Your task to perform on an android device: add a label to a message in the gmail app Image 0: 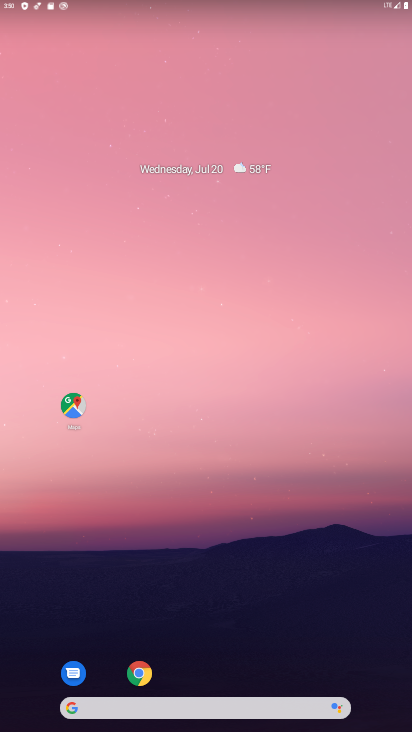
Step 0: drag from (268, 505) to (235, 232)
Your task to perform on an android device: add a label to a message in the gmail app Image 1: 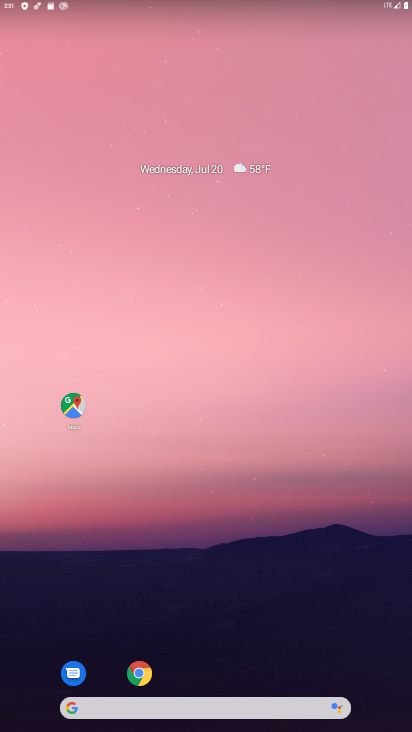
Step 1: drag from (210, 449) to (255, 83)
Your task to perform on an android device: add a label to a message in the gmail app Image 2: 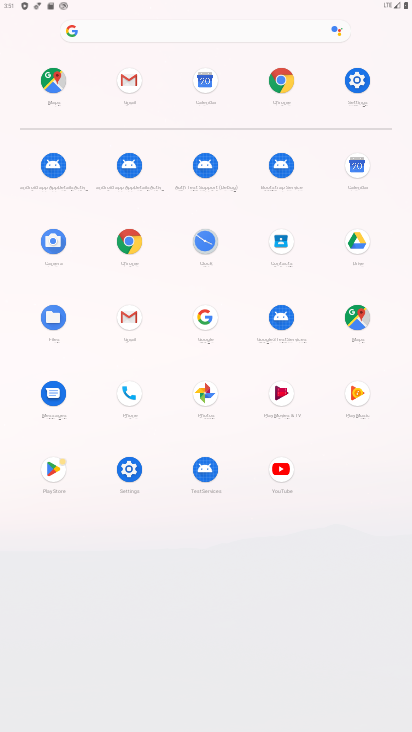
Step 2: click (126, 324)
Your task to perform on an android device: add a label to a message in the gmail app Image 3: 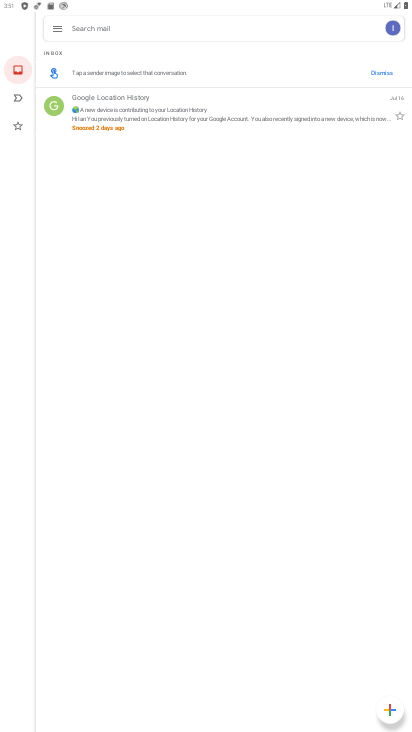
Step 3: click (51, 106)
Your task to perform on an android device: add a label to a message in the gmail app Image 4: 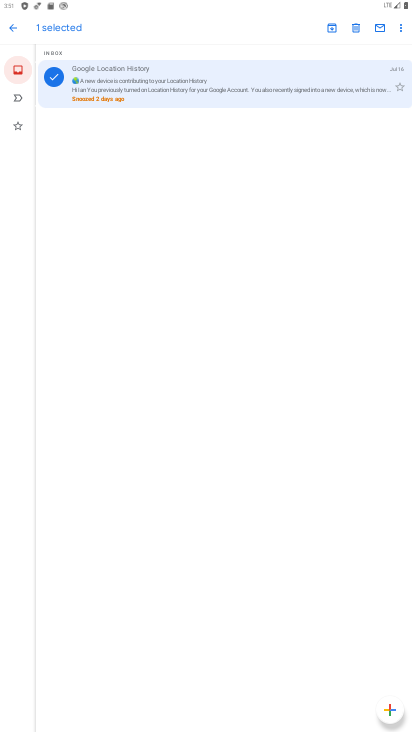
Step 4: click (404, 25)
Your task to perform on an android device: add a label to a message in the gmail app Image 5: 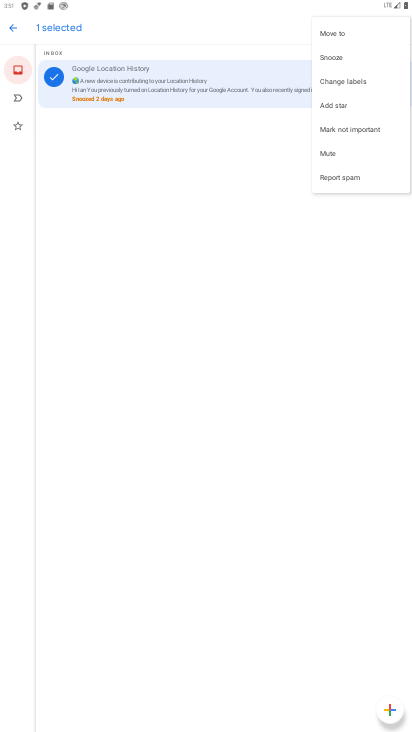
Step 5: click (351, 78)
Your task to perform on an android device: add a label to a message in the gmail app Image 6: 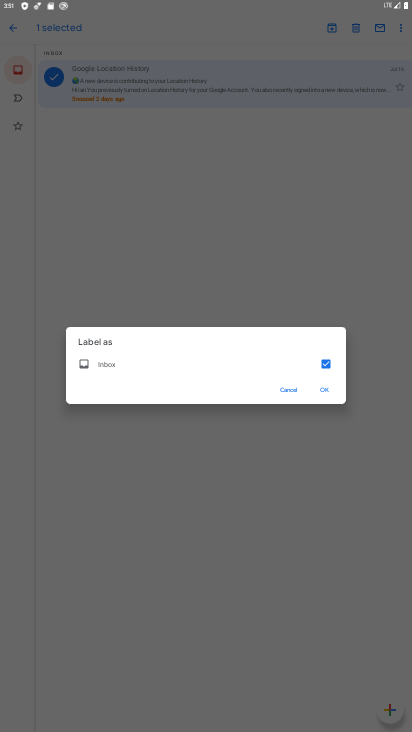
Step 6: click (323, 384)
Your task to perform on an android device: add a label to a message in the gmail app Image 7: 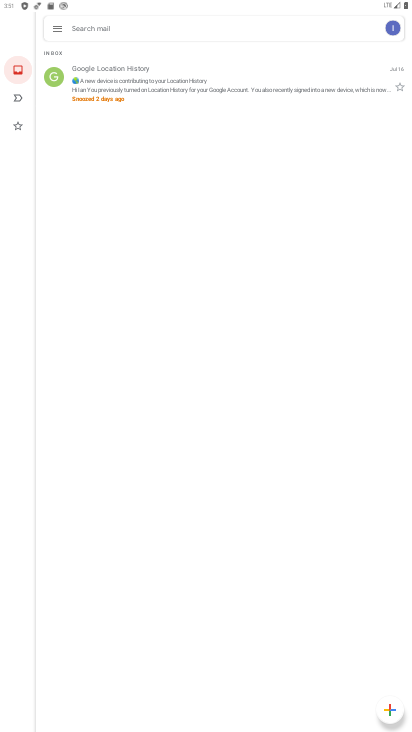
Step 7: task complete